Your task to perform on an android device: turn off wifi Image 0: 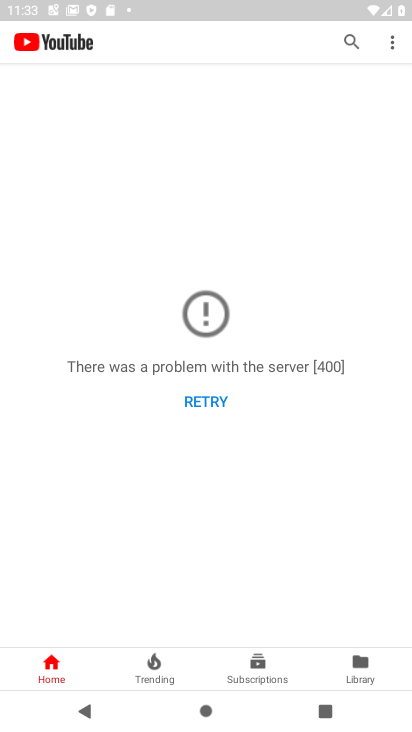
Step 0: press home button
Your task to perform on an android device: turn off wifi Image 1: 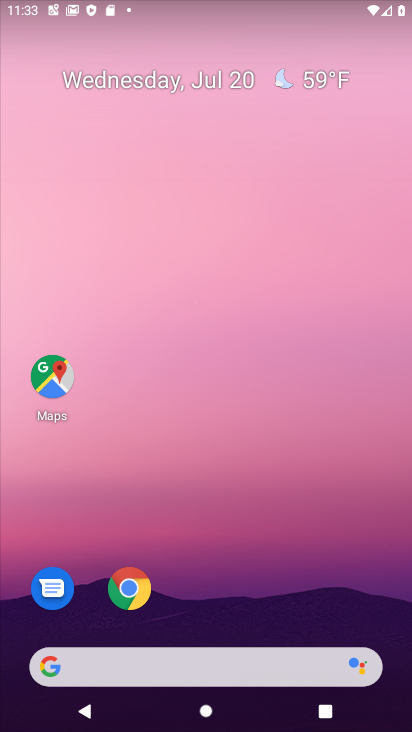
Step 1: drag from (201, 468) to (154, 0)
Your task to perform on an android device: turn off wifi Image 2: 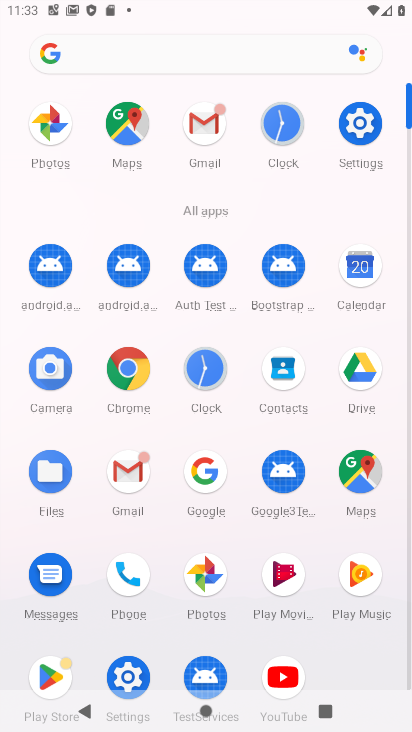
Step 2: click (359, 126)
Your task to perform on an android device: turn off wifi Image 3: 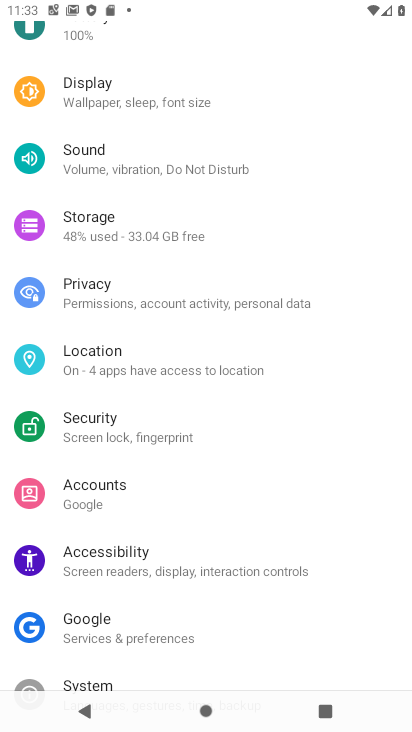
Step 3: drag from (263, 87) to (355, 597)
Your task to perform on an android device: turn off wifi Image 4: 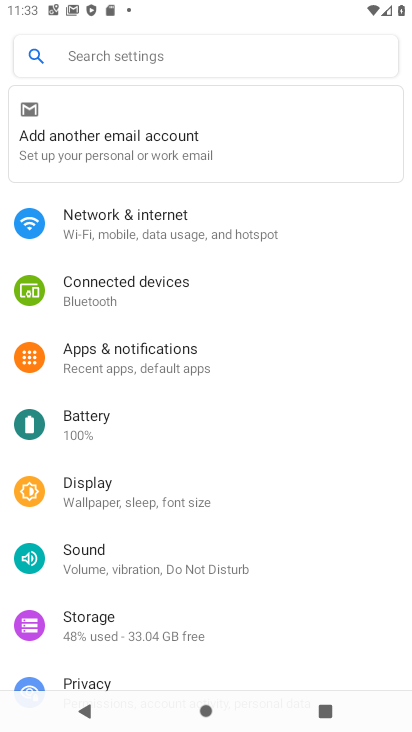
Step 4: click (162, 225)
Your task to perform on an android device: turn off wifi Image 5: 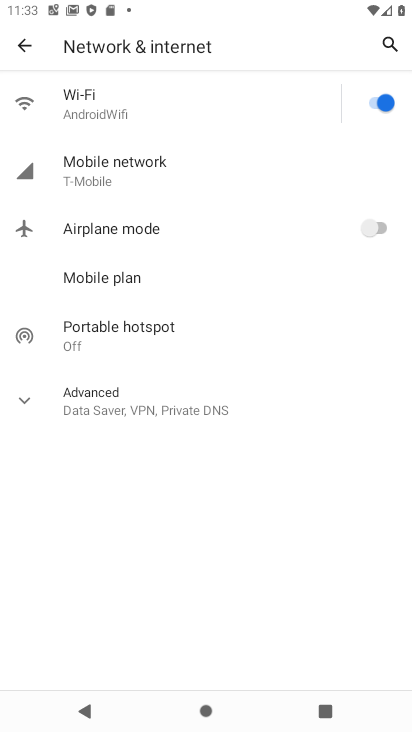
Step 5: click (382, 101)
Your task to perform on an android device: turn off wifi Image 6: 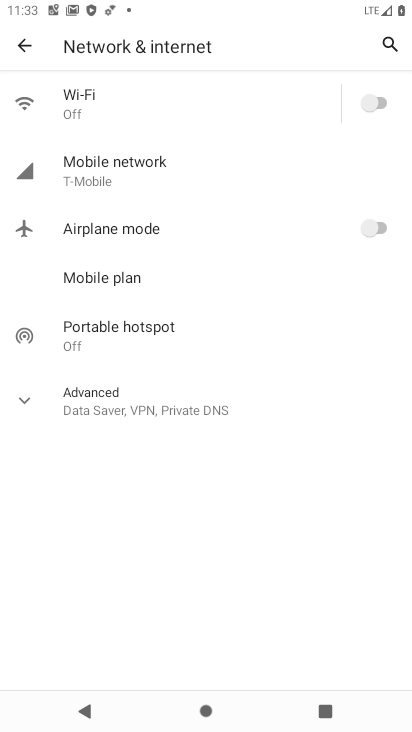
Step 6: task complete